Your task to perform on an android device: Go to CNN.com Image 0: 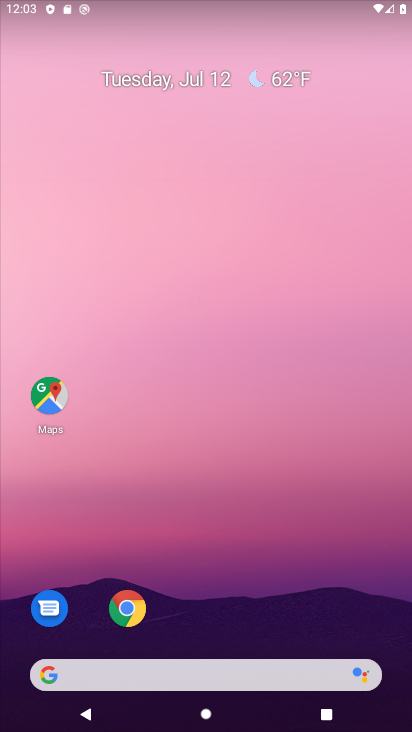
Step 0: drag from (229, 567) to (297, 56)
Your task to perform on an android device: Go to CNN.com Image 1: 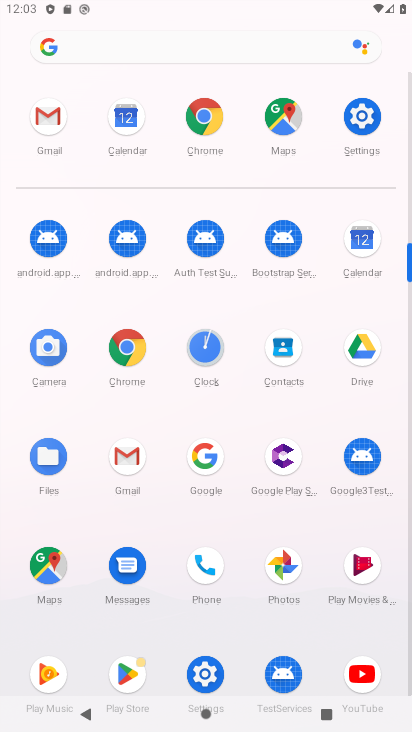
Step 1: click (215, 133)
Your task to perform on an android device: Go to CNN.com Image 2: 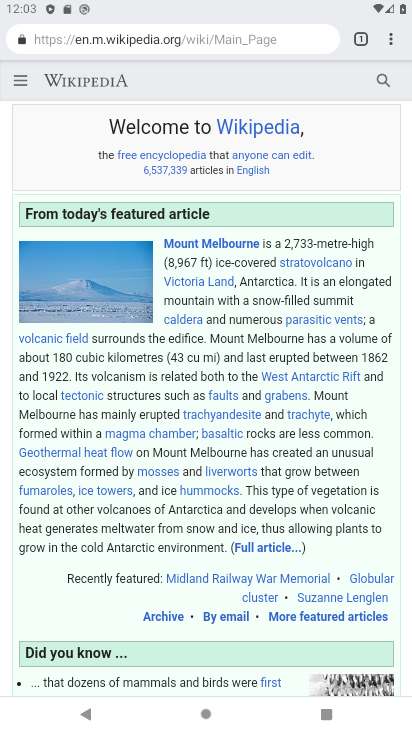
Step 2: click (116, 32)
Your task to perform on an android device: Go to CNN.com Image 3: 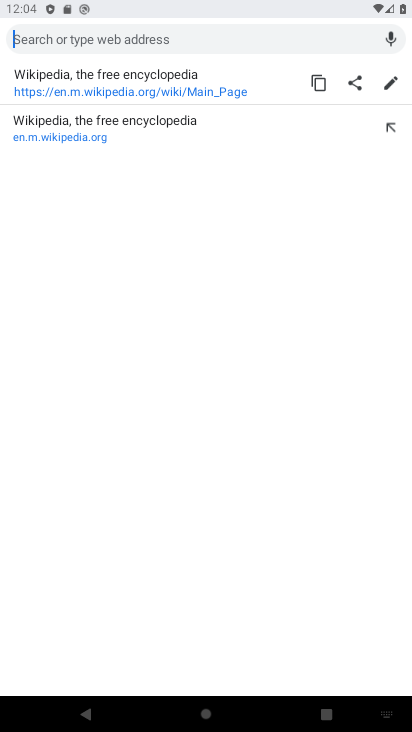
Step 3: type "cnn.com"
Your task to perform on an android device: Go to CNN.com Image 4: 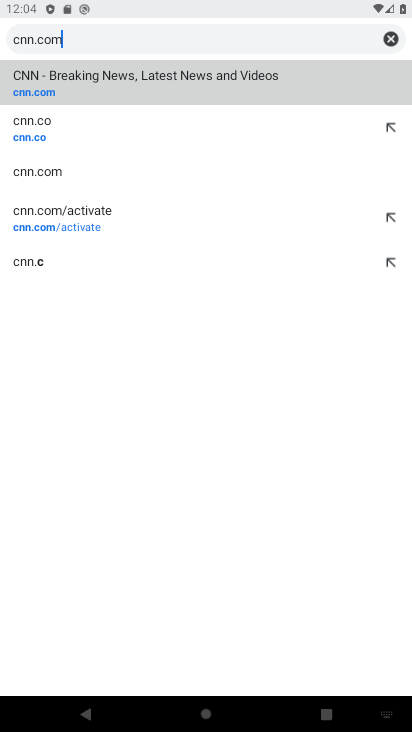
Step 4: press enter
Your task to perform on an android device: Go to CNN.com Image 5: 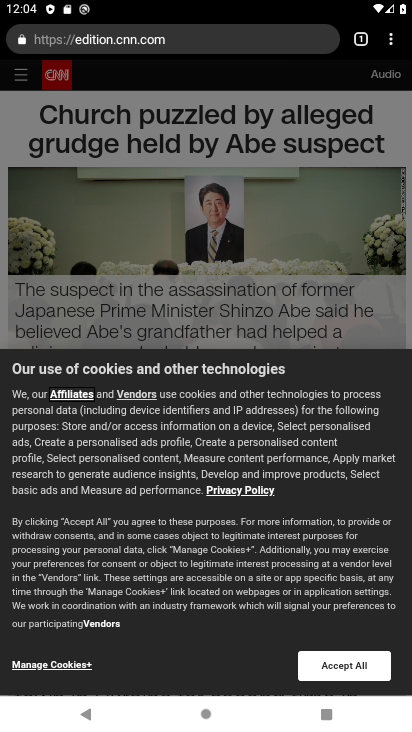
Step 5: task complete